Your task to perform on an android device: allow notifications from all sites in the chrome app Image 0: 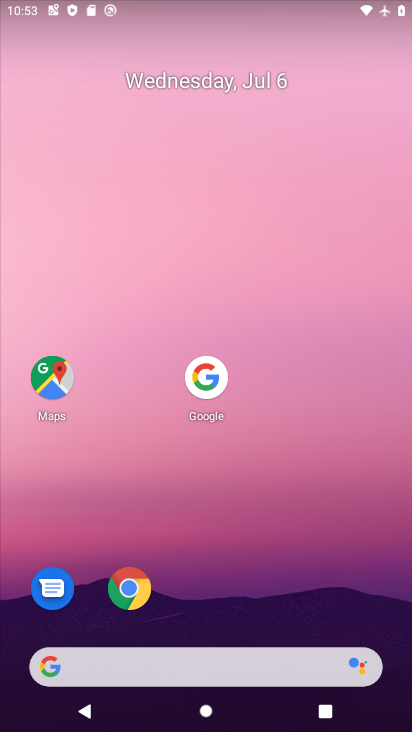
Step 0: click (130, 590)
Your task to perform on an android device: allow notifications from all sites in the chrome app Image 1: 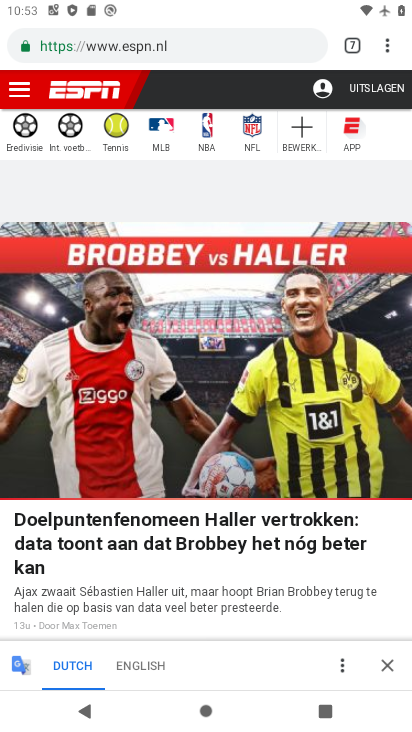
Step 1: click (388, 56)
Your task to perform on an android device: allow notifications from all sites in the chrome app Image 2: 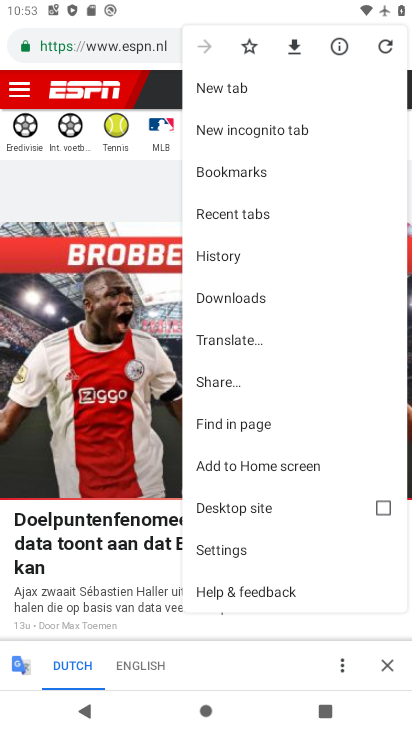
Step 2: click (250, 550)
Your task to perform on an android device: allow notifications from all sites in the chrome app Image 3: 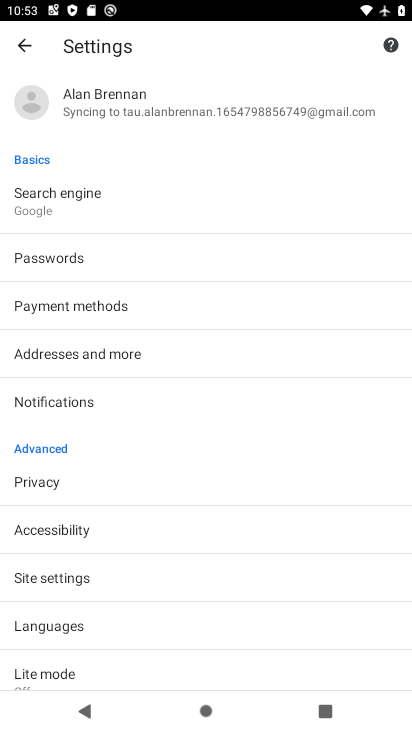
Step 3: click (99, 575)
Your task to perform on an android device: allow notifications from all sites in the chrome app Image 4: 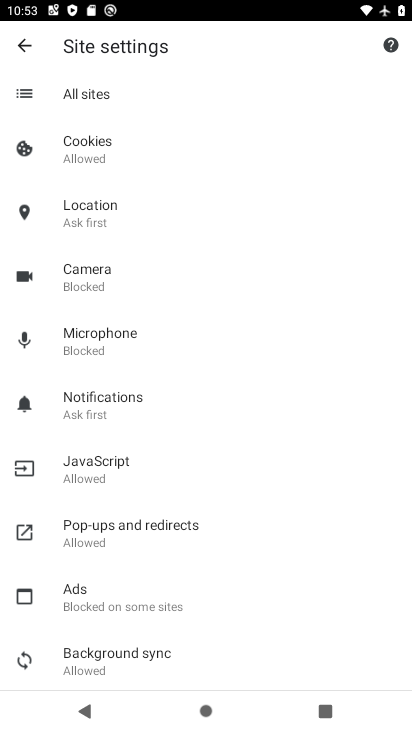
Step 4: click (112, 407)
Your task to perform on an android device: allow notifications from all sites in the chrome app Image 5: 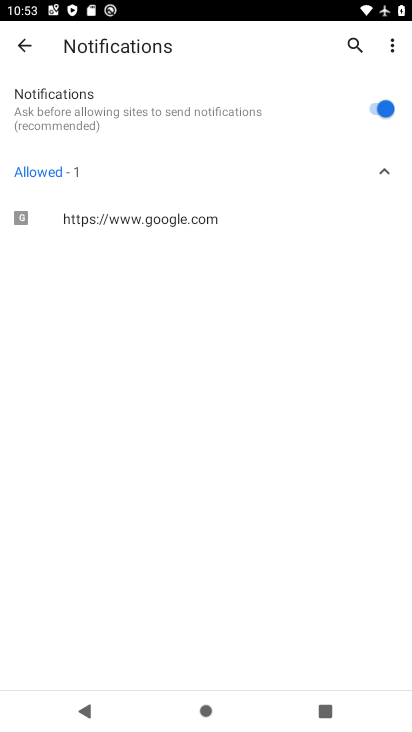
Step 5: task complete